Your task to perform on an android device: Go to Android settings Image 0: 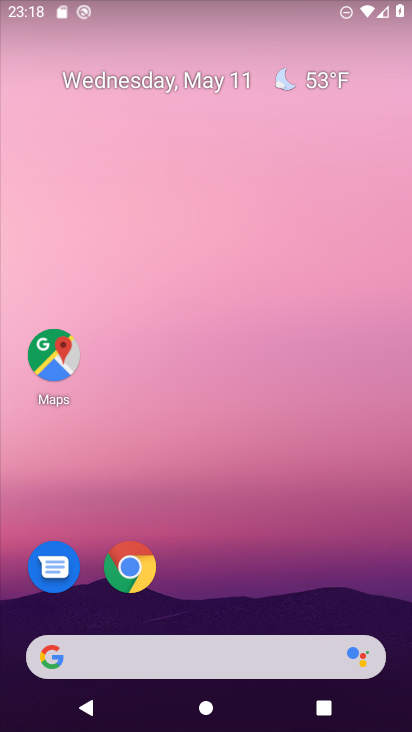
Step 0: drag from (157, 708) to (355, 20)
Your task to perform on an android device: Go to Android settings Image 1: 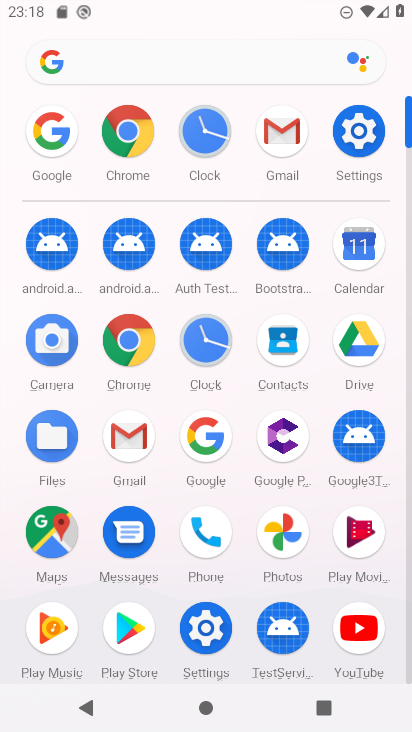
Step 1: click (367, 141)
Your task to perform on an android device: Go to Android settings Image 2: 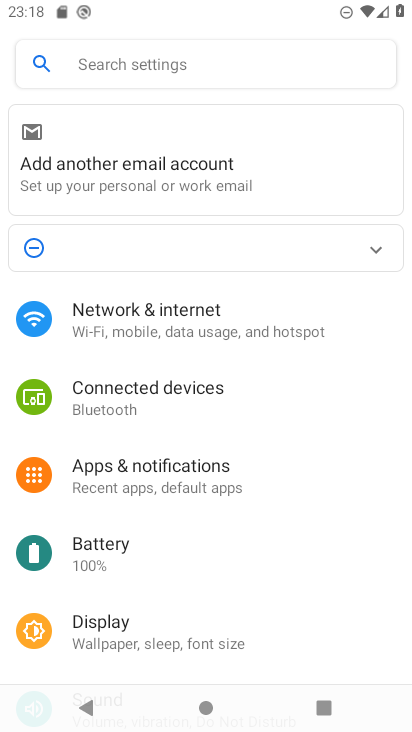
Step 2: task complete